Your task to perform on an android device: see sites visited before in the chrome app Image 0: 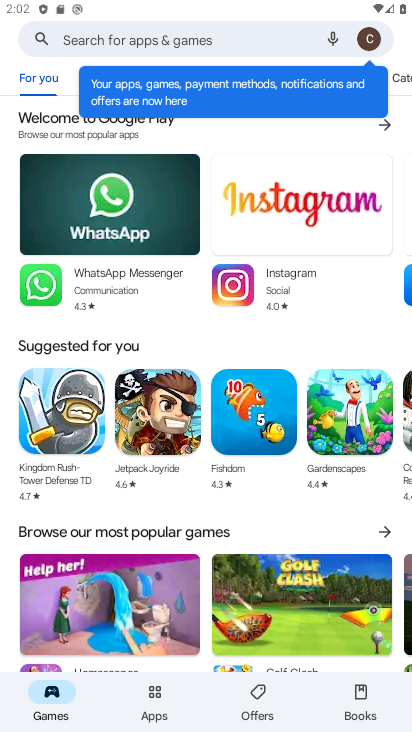
Step 0: press back button
Your task to perform on an android device: see sites visited before in the chrome app Image 1: 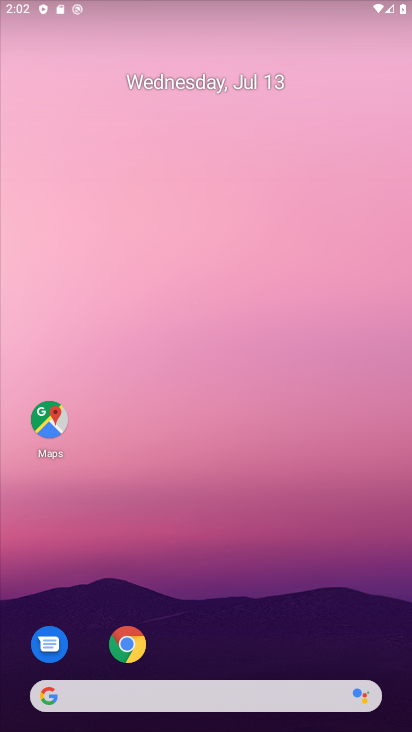
Step 1: drag from (240, 622) to (287, 48)
Your task to perform on an android device: see sites visited before in the chrome app Image 2: 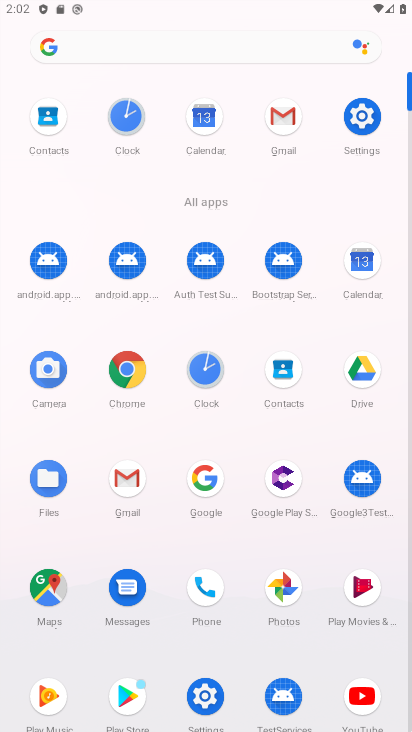
Step 2: click (109, 379)
Your task to perform on an android device: see sites visited before in the chrome app Image 3: 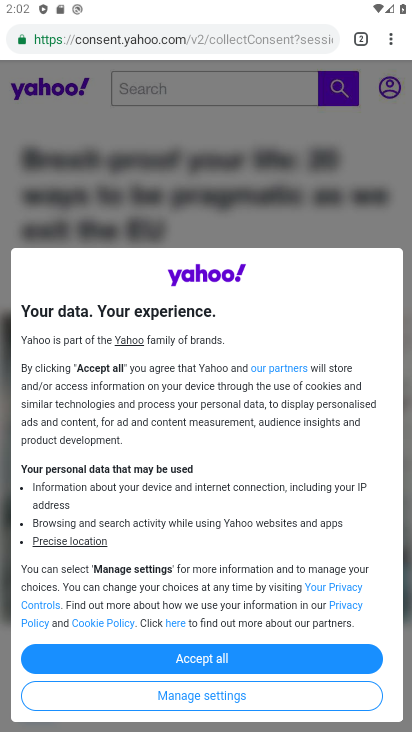
Step 3: task complete